Your task to perform on an android device: allow cookies in the chrome app Image 0: 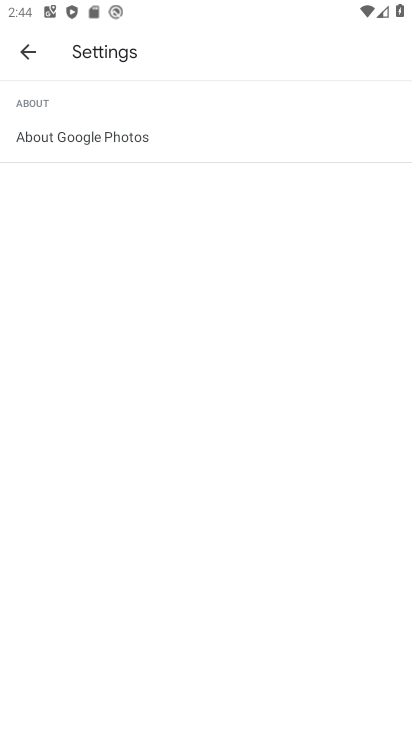
Step 0: press home button
Your task to perform on an android device: allow cookies in the chrome app Image 1: 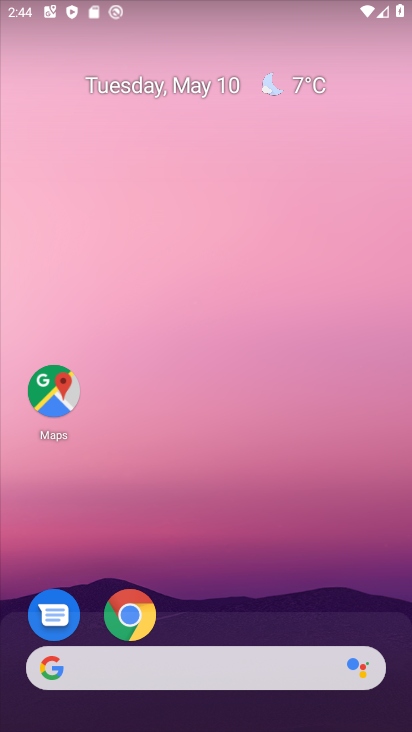
Step 1: click (131, 621)
Your task to perform on an android device: allow cookies in the chrome app Image 2: 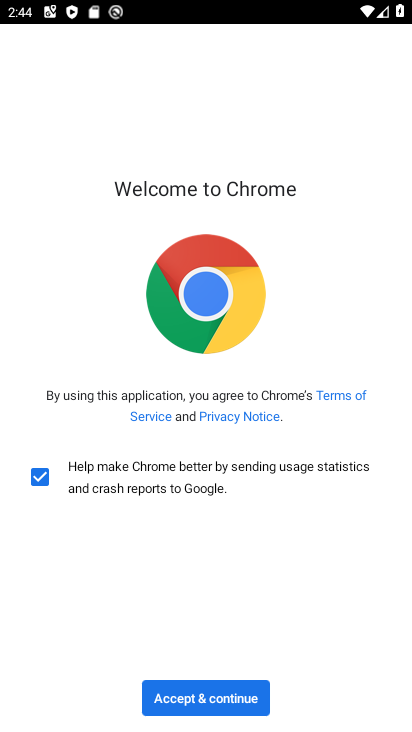
Step 2: click (201, 695)
Your task to perform on an android device: allow cookies in the chrome app Image 3: 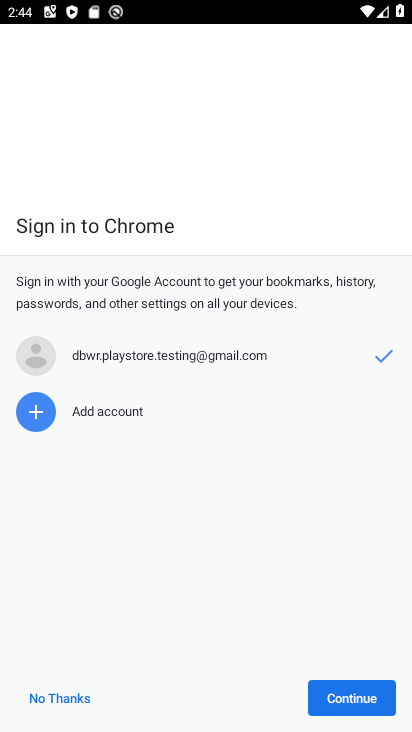
Step 3: click (363, 696)
Your task to perform on an android device: allow cookies in the chrome app Image 4: 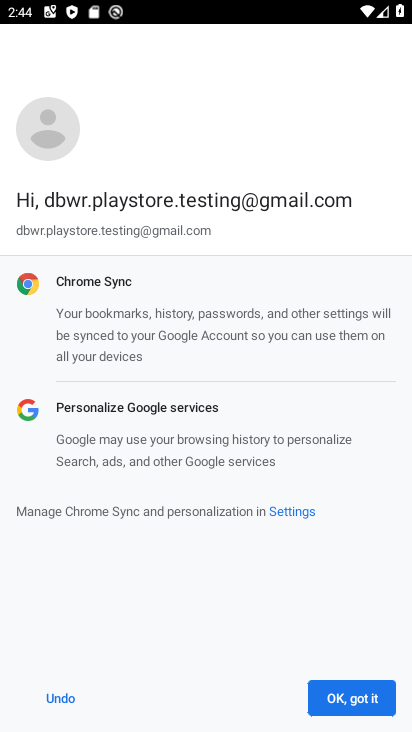
Step 4: click (359, 704)
Your task to perform on an android device: allow cookies in the chrome app Image 5: 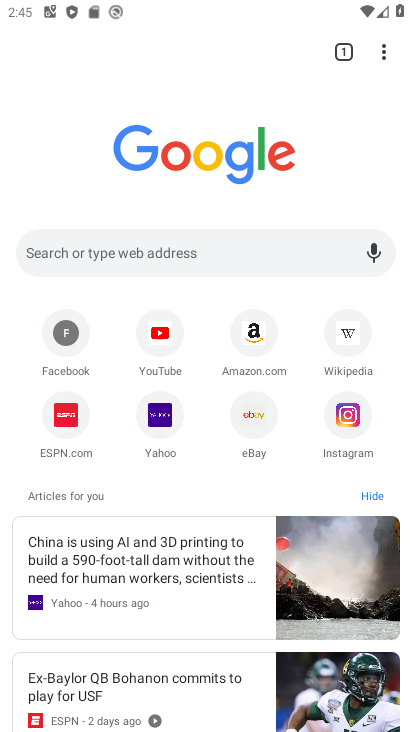
Step 5: click (383, 55)
Your task to perform on an android device: allow cookies in the chrome app Image 6: 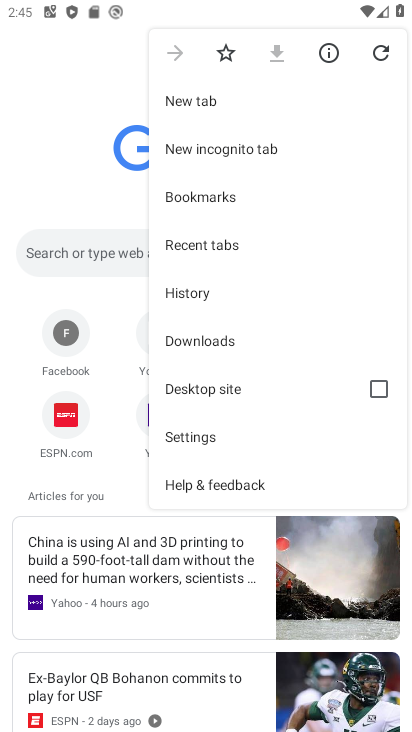
Step 6: click (186, 434)
Your task to perform on an android device: allow cookies in the chrome app Image 7: 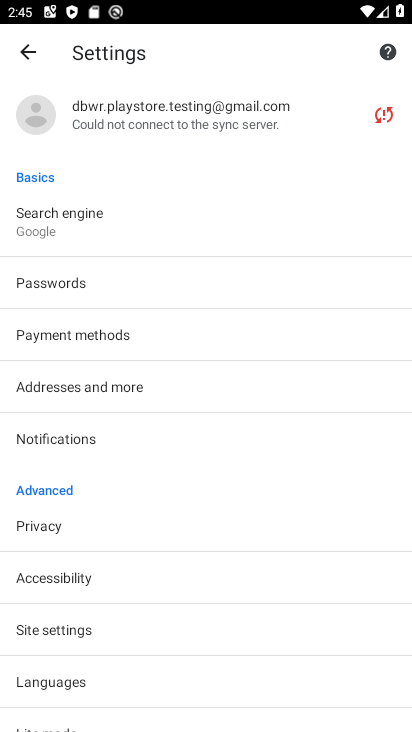
Step 7: drag from (93, 532) to (109, 381)
Your task to perform on an android device: allow cookies in the chrome app Image 8: 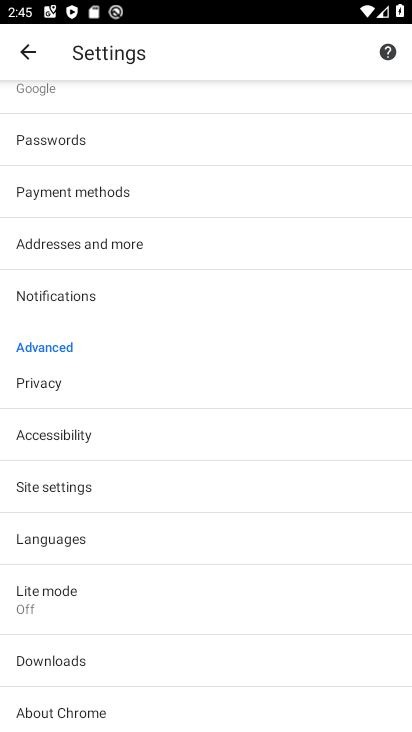
Step 8: click (74, 488)
Your task to perform on an android device: allow cookies in the chrome app Image 9: 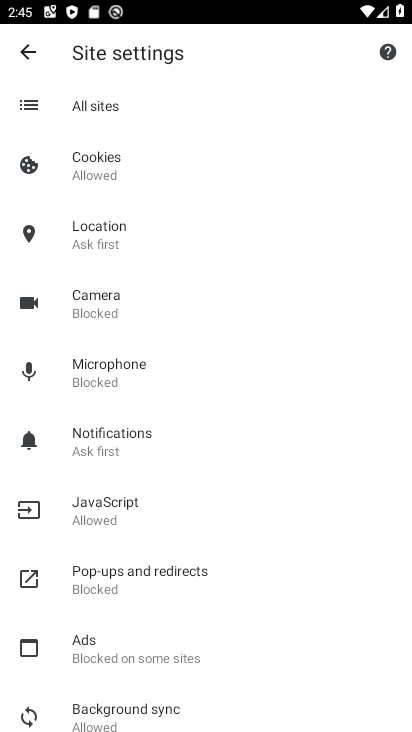
Step 9: click (98, 164)
Your task to perform on an android device: allow cookies in the chrome app Image 10: 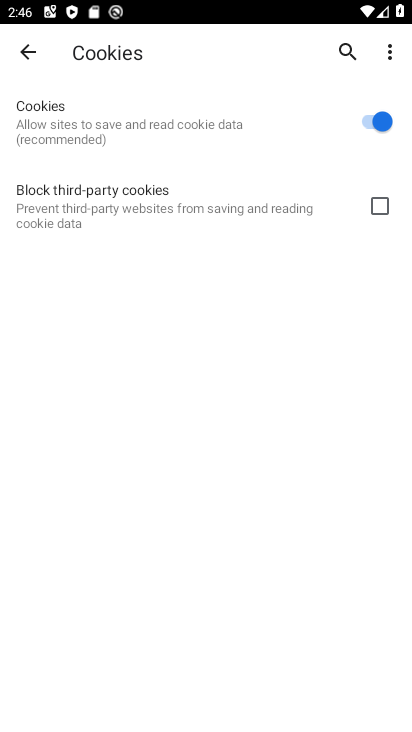
Step 10: task complete